Your task to perform on an android device: Search for sushi restaurants on Maps Image 0: 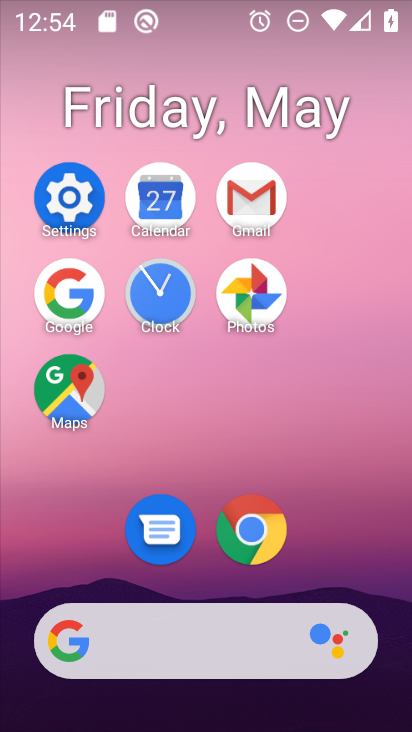
Step 0: click (86, 380)
Your task to perform on an android device: Search for sushi restaurants on Maps Image 1: 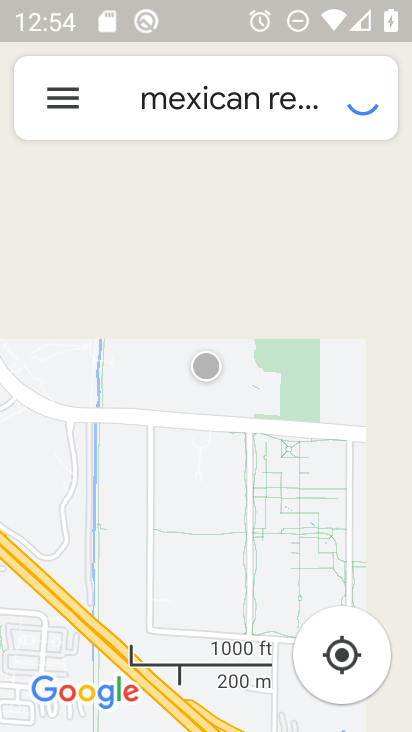
Step 1: click (311, 107)
Your task to perform on an android device: Search for sushi restaurants on Maps Image 2: 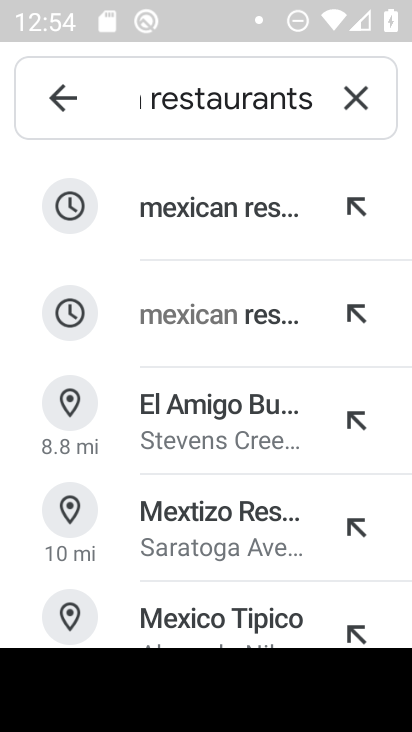
Step 2: click (348, 106)
Your task to perform on an android device: Search for sushi restaurants on Maps Image 3: 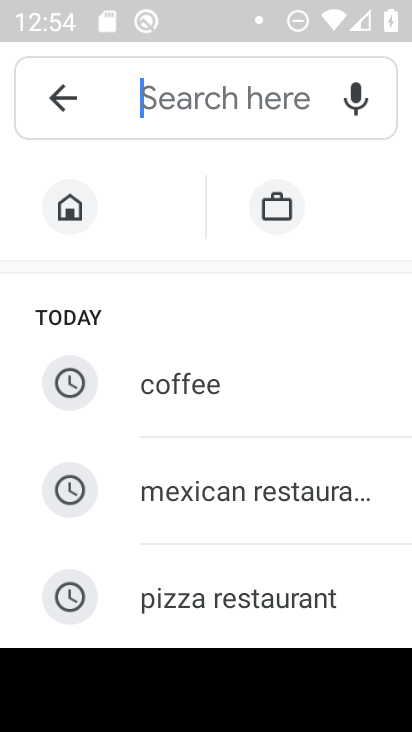
Step 3: drag from (232, 533) to (241, 80)
Your task to perform on an android device: Search for sushi restaurants on Maps Image 4: 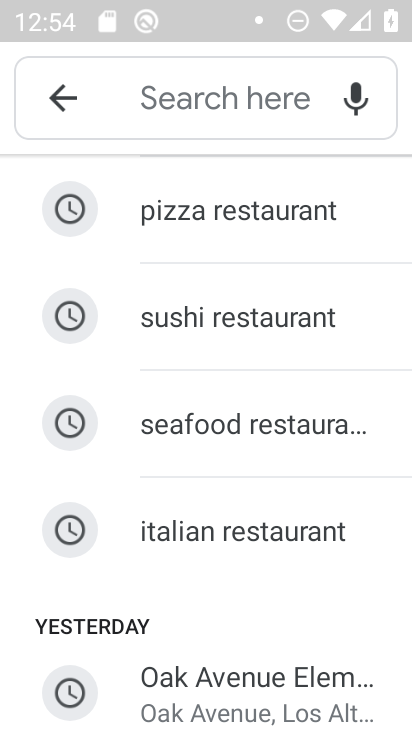
Step 4: drag from (277, 547) to (278, 365)
Your task to perform on an android device: Search for sushi restaurants on Maps Image 5: 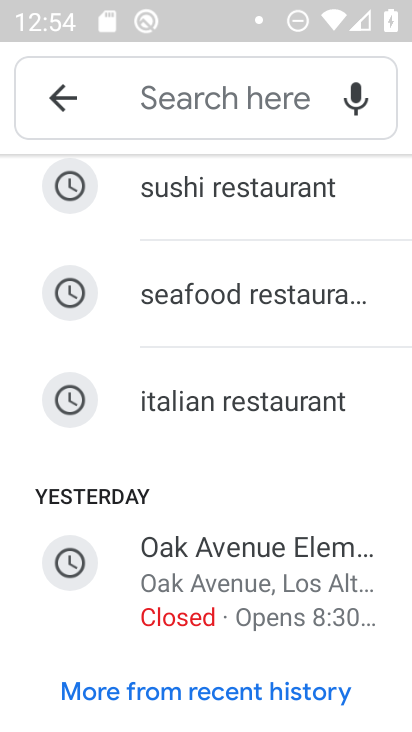
Step 5: click (311, 186)
Your task to perform on an android device: Search for sushi restaurants on Maps Image 6: 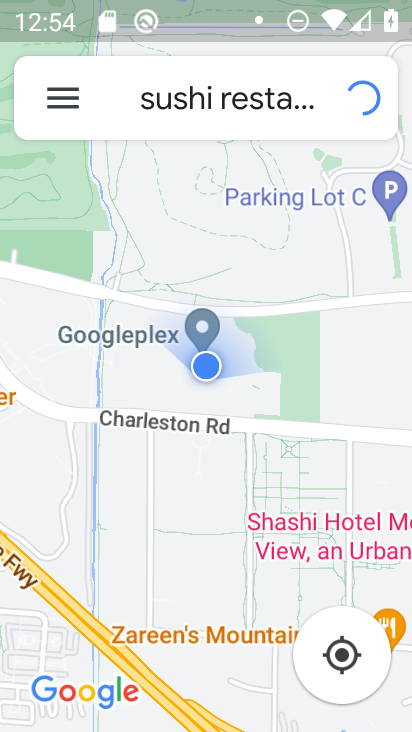
Step 6: task complete